Your task to perform on an android device: open app "Facebook Lite" Image 0: 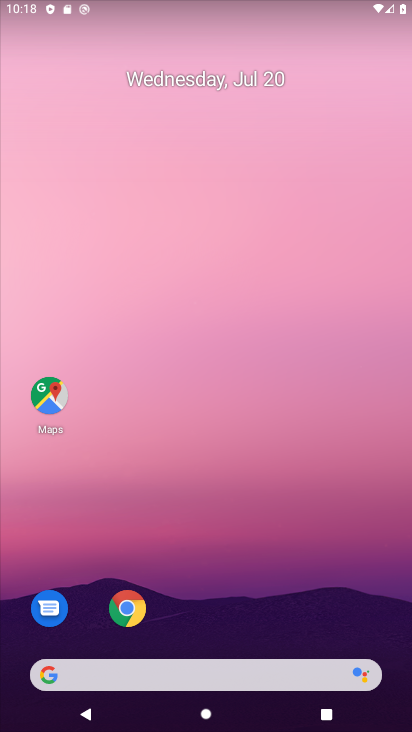
Step 0: drag from (397, 641) to (409, 21)
Your task to perform on an android device: open app "Facebook Lite" Image 1: 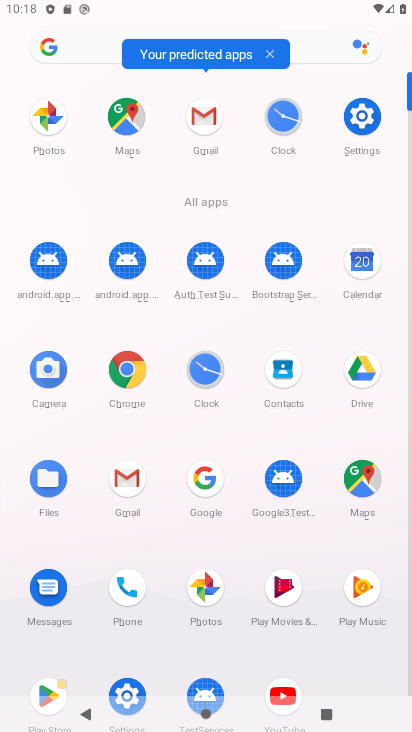
Step 1: task complete